Your task to perform on an android device: Go to sound settings Image 0: 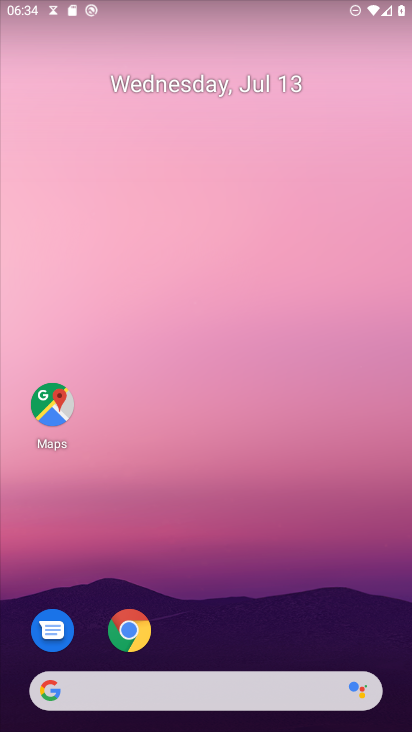
Step 0: drag from (210, 662) to (341, 90)
Your task to perform on an android device: Go to sound settings Image 1: 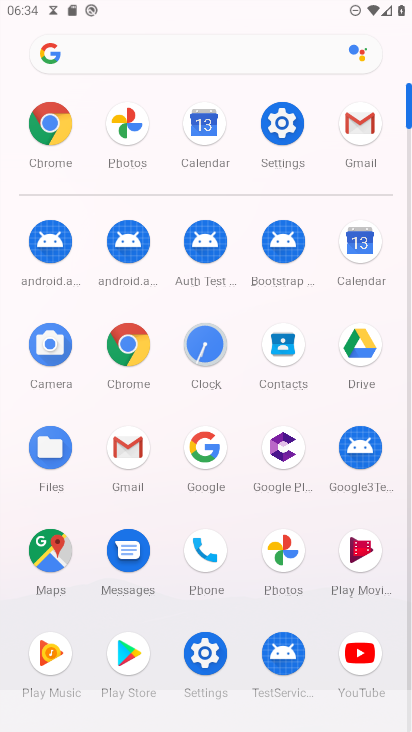
Step 1: click (277, 134)
Your task to perform on an android device: Go to sound settings Image 2: 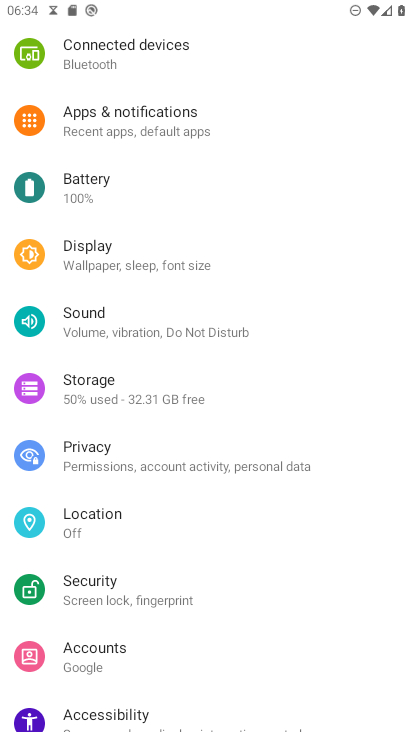
Step 2: click (107, 311)
Your task to perform on an android device: Go to sound settings Image 3: 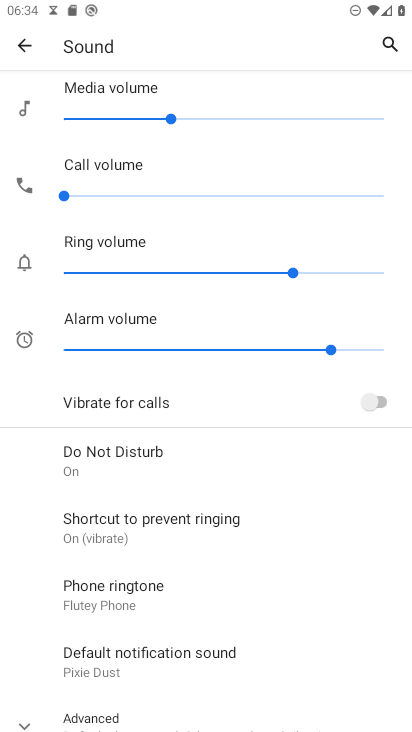
Step 3: task complete